Your task to perform on an android device: Go to settings Image 0: 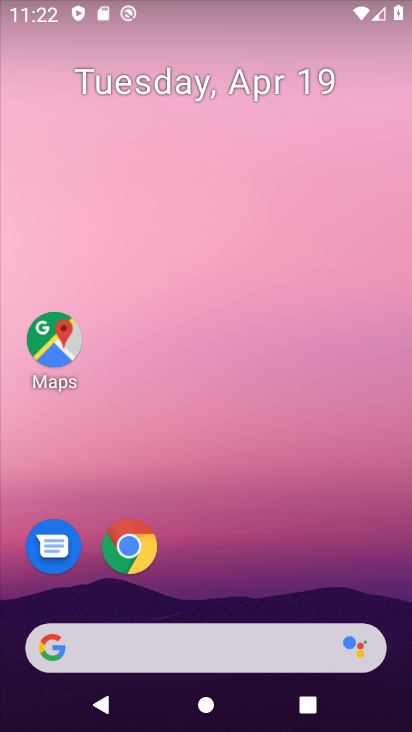
Step 0: drag from (365, 535) to (260, 21)
Your task to perform on an android device: Go to settings Image 1: 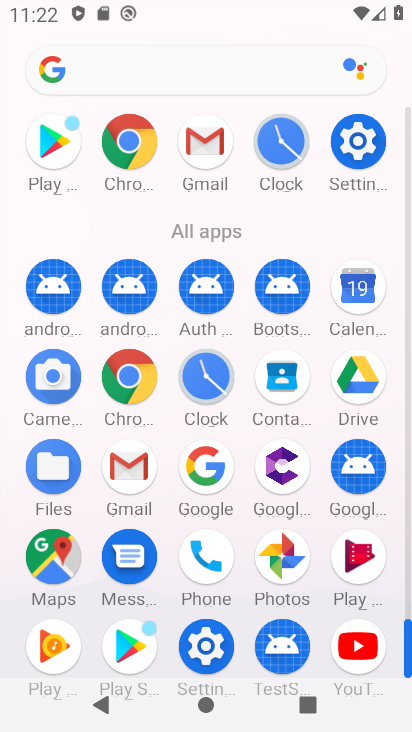
Step 1: drag from (17, 523) to (22, 234)
Your task to perform on an android device: Go to settings Image 2: 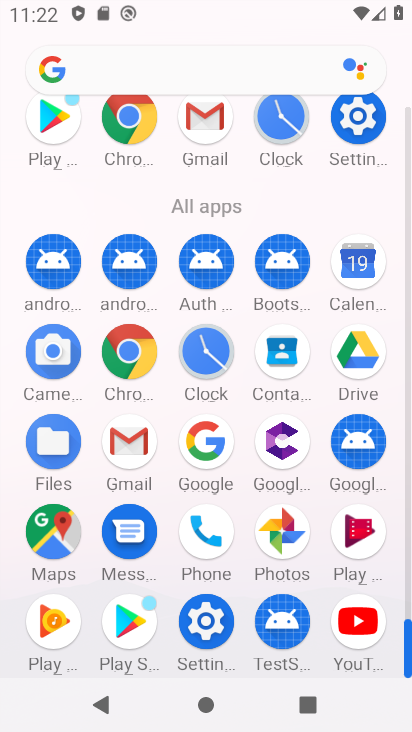
Step 2: click (208, 621)
Your task to perform on an android device: Go to settings Image 3: 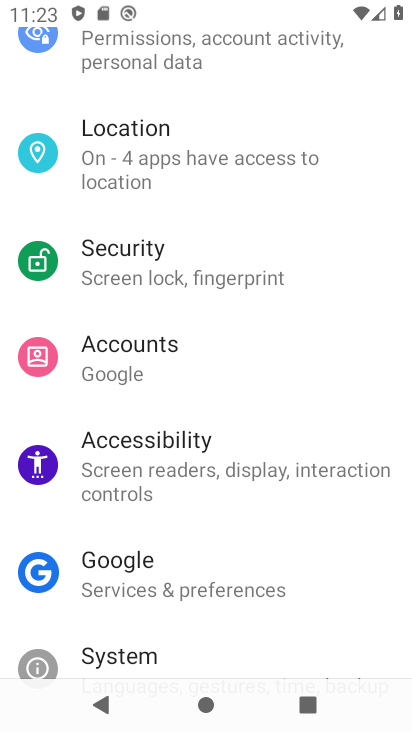
Step 3: task complete